Your task to perform on an android device: Search for pizza restaurants on Maps Image 0: 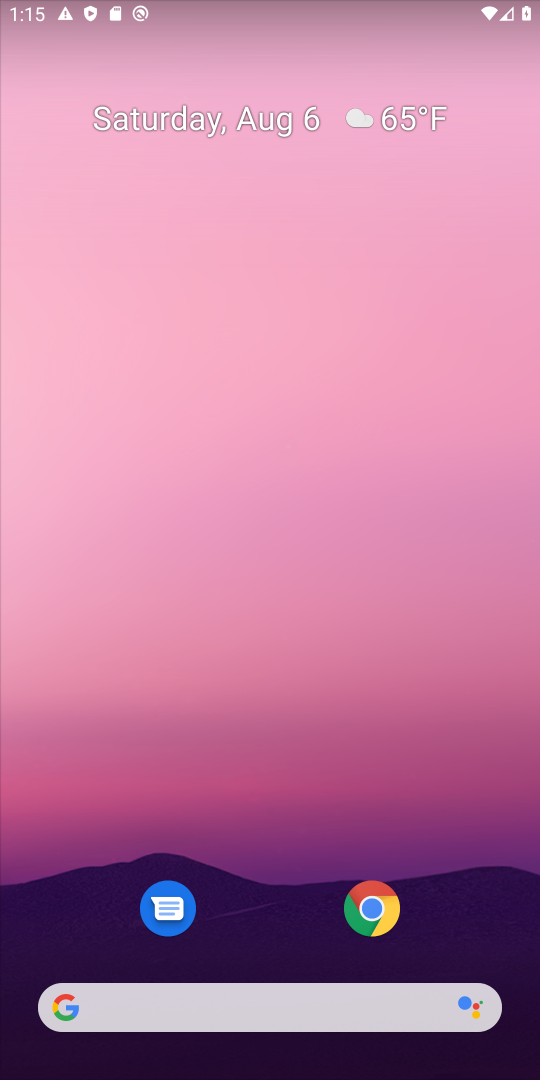
Step 0: drag from (292, 901) to (276, 199)
Your task to perform on an android device: Search for pizza restaurants on Maps Image 1: 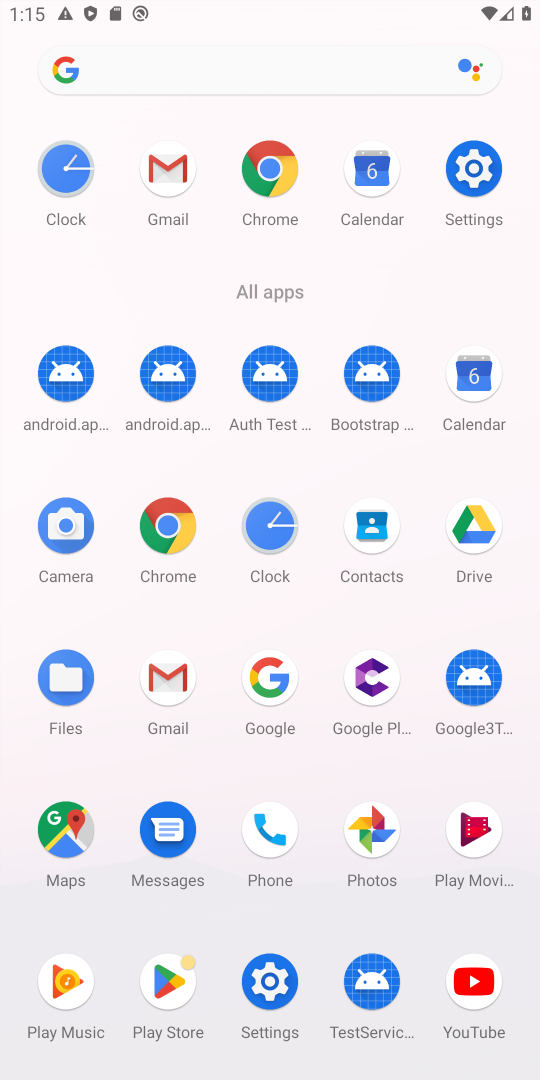
Step 1: click (58, 828)
Your task to perform on an android device: Search for pizza restaurants on Maps Image 2: 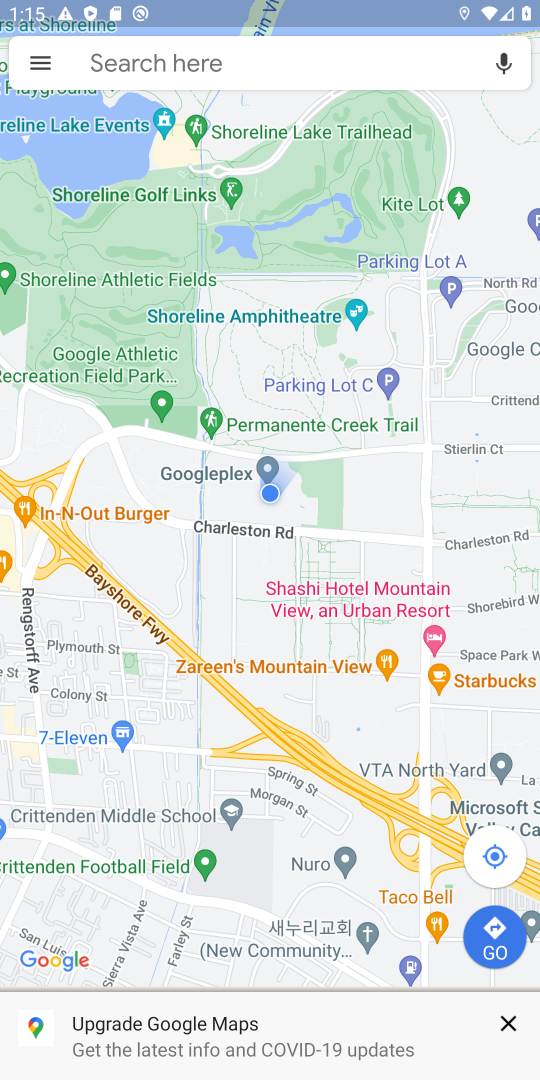
Step 2: click (258, 57)
Your task to perform on an android device: Search for pizza restaurants on Maps Image 3: 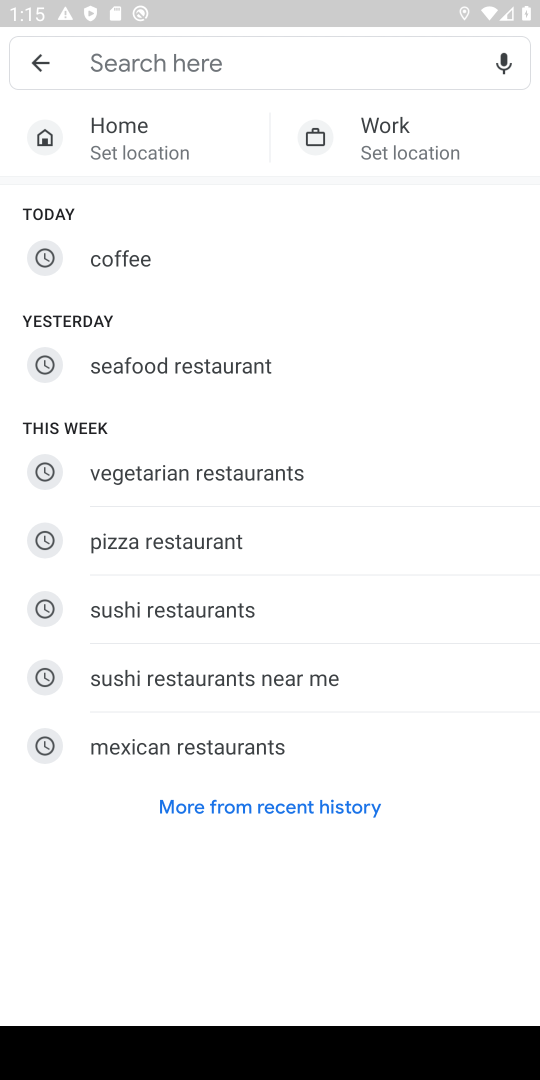
Step 3: type "pizza restaurants"
Your task to perform on an android device: Search for pizza restaurants on Maps Image 4: 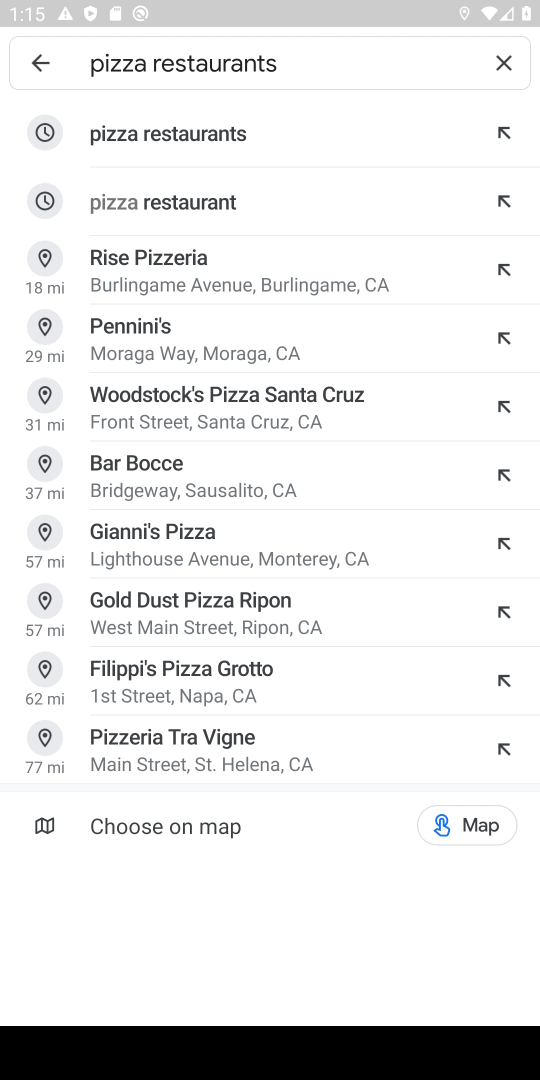
Step 4: click (277, 124)
Your task to perform on an android device: Search for pizza restaurants on Maps Image 5: 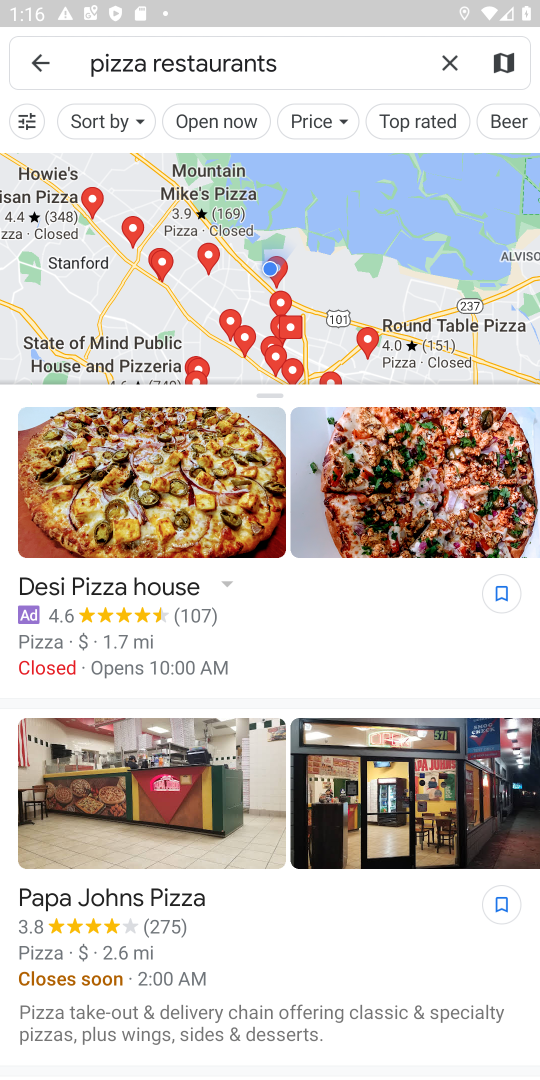
Step 5: task complete